Your task to perform on an android device: See recent photos Image 0: 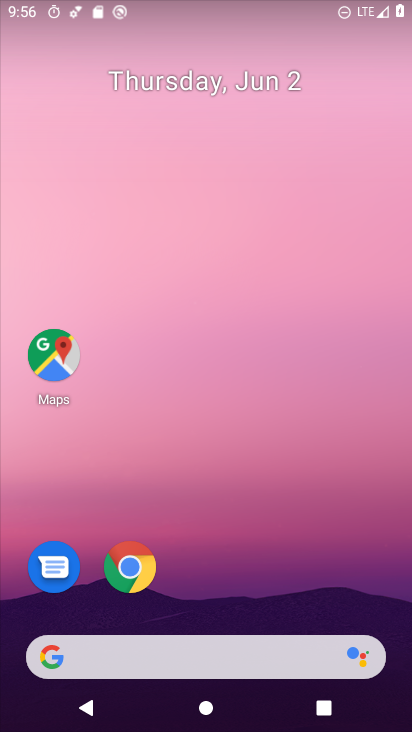
Step 0: drag from (320, 588) to (313, 206)
Your task to perform on an android device: See recent photos Image 1: 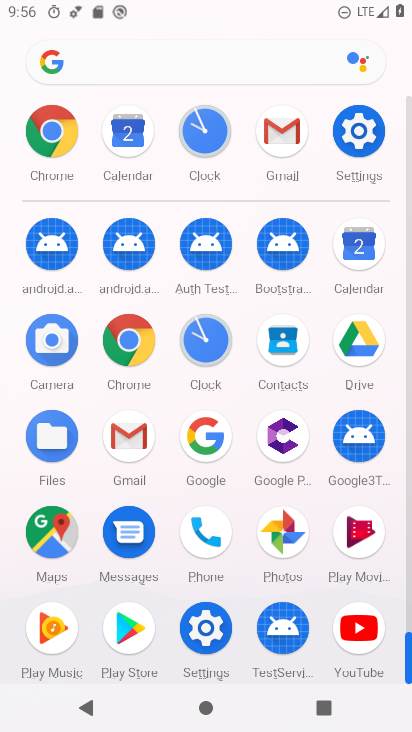
Step 1: click (293, 534)
Your task to perform on an android device: See recent photos Image 2: 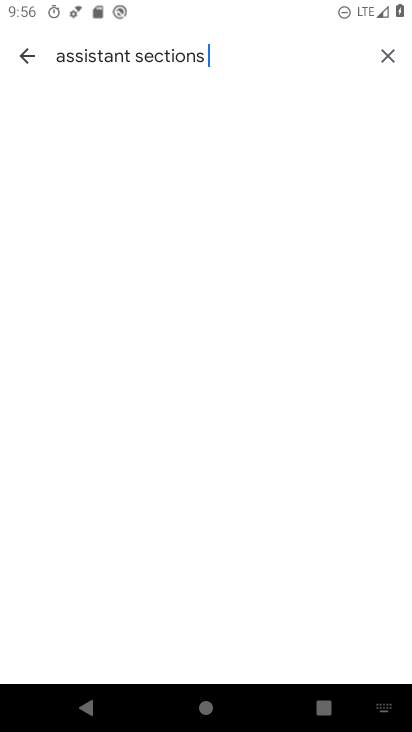
Step 2: click (376, 56)
Your task to perform on an android device: See recent photos Image 3: 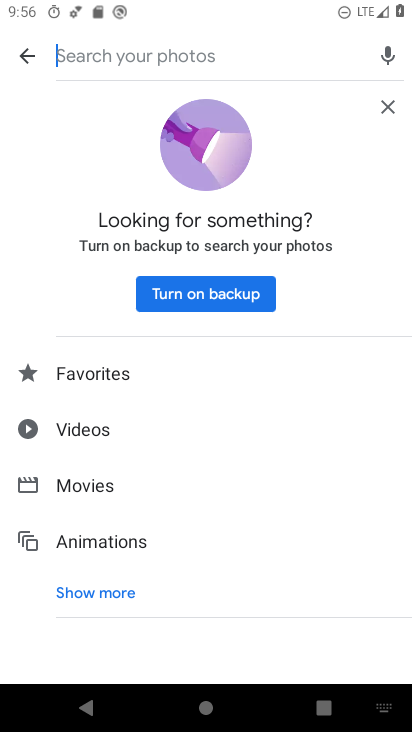
Step 3: click (25, 56)
Your task to perform on an android device: See recent photos Image 4: 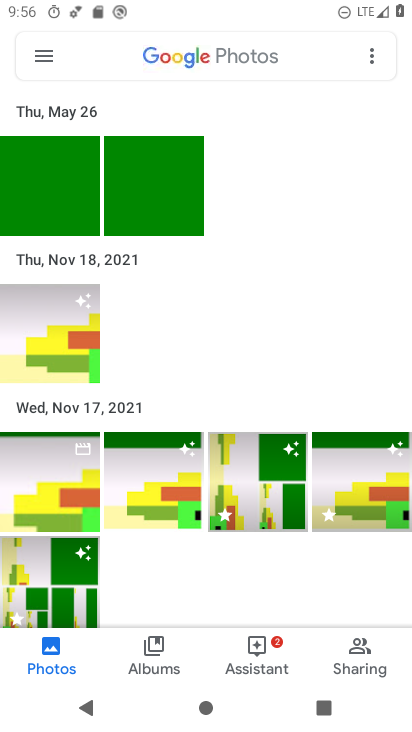
Step 4: task complete